Your task to perform on an android device: What's the weather? Image 0: 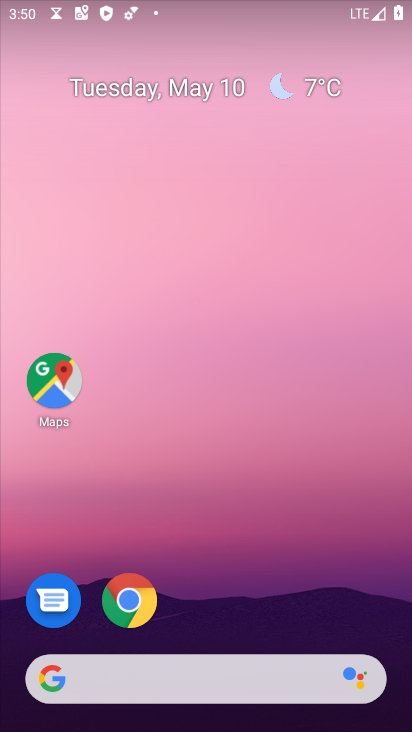
Step 0: click (282, 83)
Your task to perform on an android device: What's the weather? Image 1: 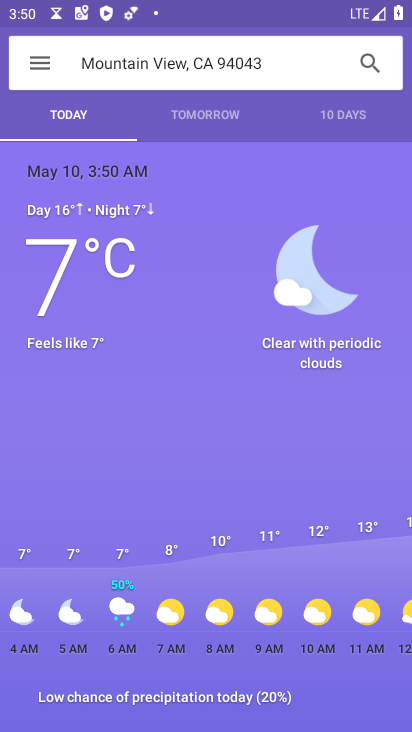
Step 1: task complete